Your task to perform on an android device: Open Reddit.com Image 0: 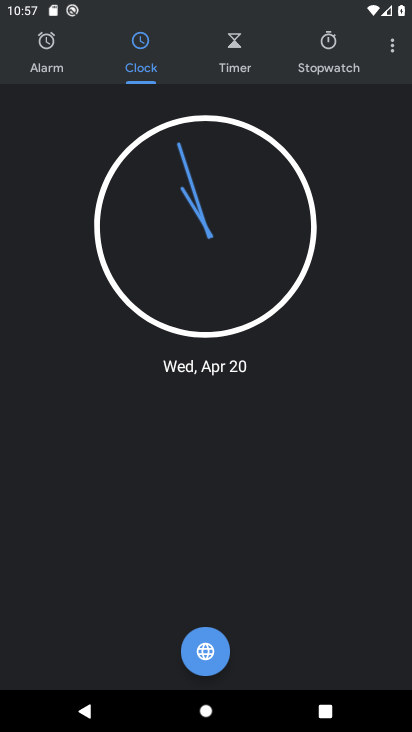
Step 0: press home button
Your task to perform on an android device: Open Reddit.com Image 1: 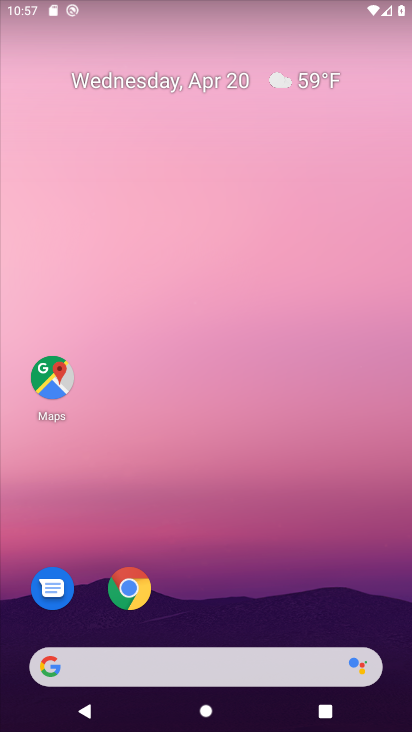
Step 1: click (134, 595)
Your task to perform on an android device: Open Reddit.com Image 2: 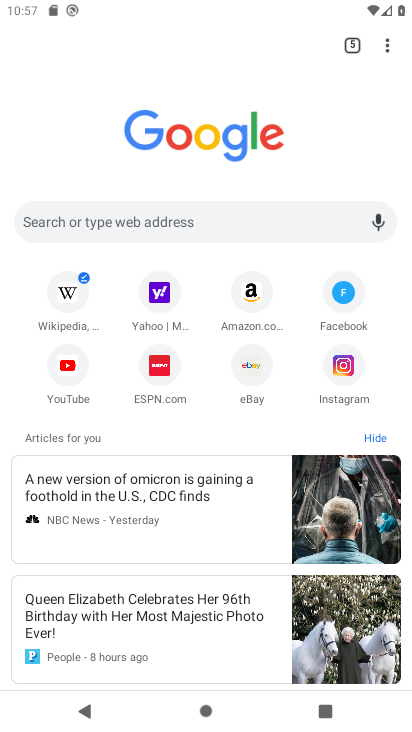
Step 2: click (384, 44)
Your task to perform on an android device: Open Reddit.com Image 3: 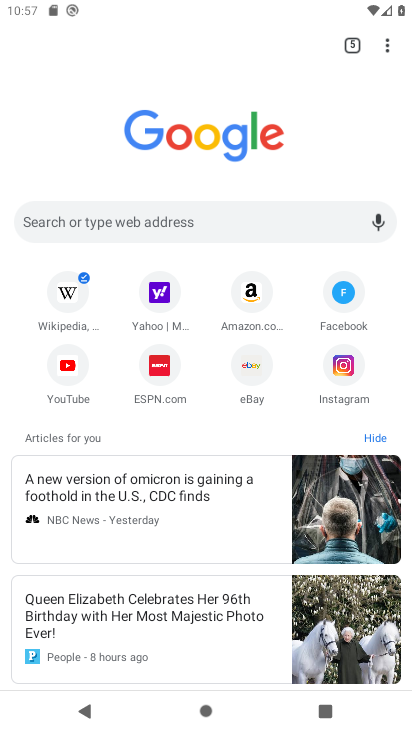
Step 3: click (389, 41)
Your task to perform on an android device: Open Reddit.com Image 4: 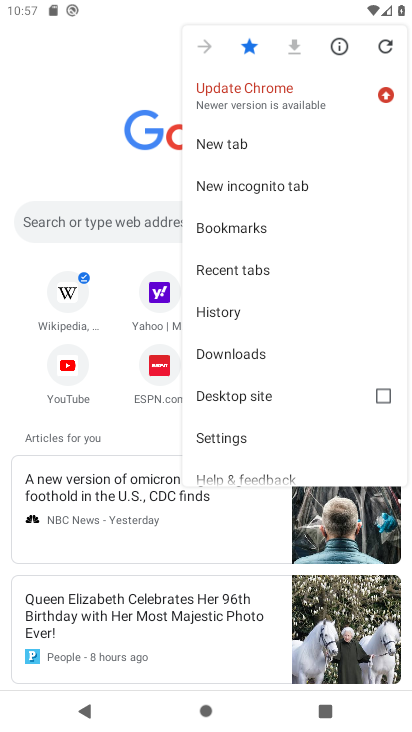
Step 4: click (220, 144)
Your task to perform on an android device: Open Reddit.com Image 5: 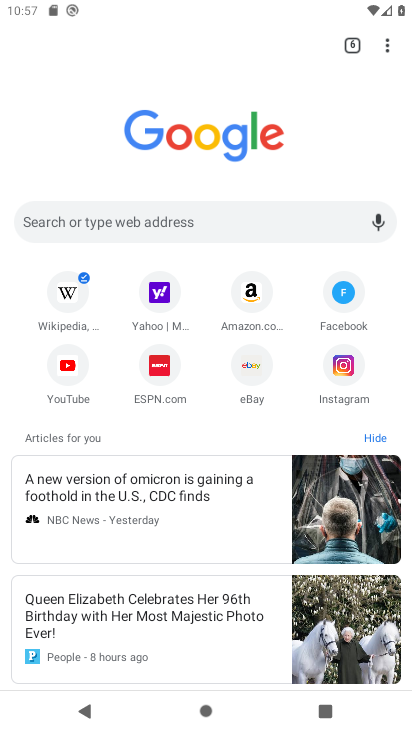
Step 5: click (164, 216)
Your task to perform on an android device: Open Reddit.com Image 6: 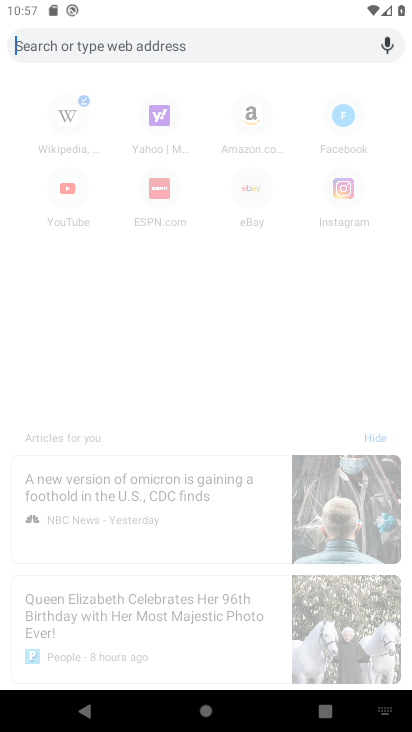
Step 6: type "Reddit.com"
Your task to perform on an android device: Open Reddit.com Image 7: 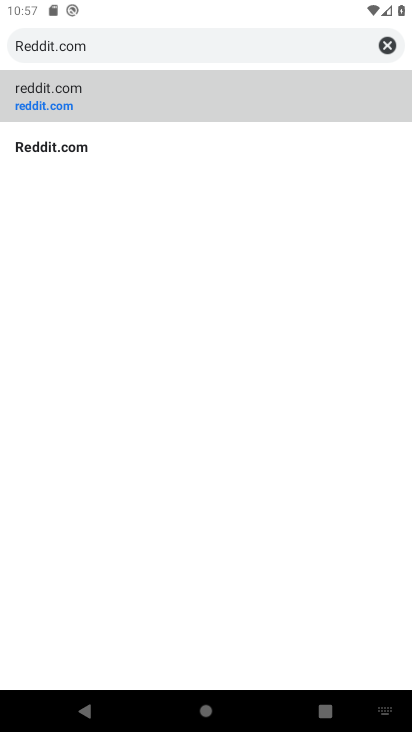
Step 7: click (66, 145)
Your task to perform on an android device: Open Reddit.com Image 8: 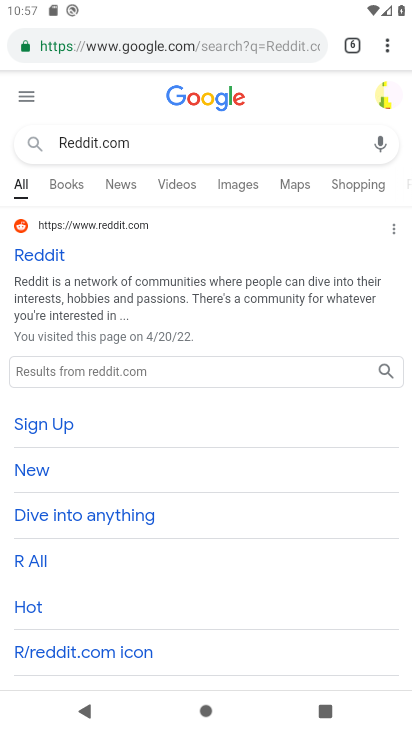
Step 8: task complete